Your task to perform on an android device: turn pop-ups off in chrome Image 0: 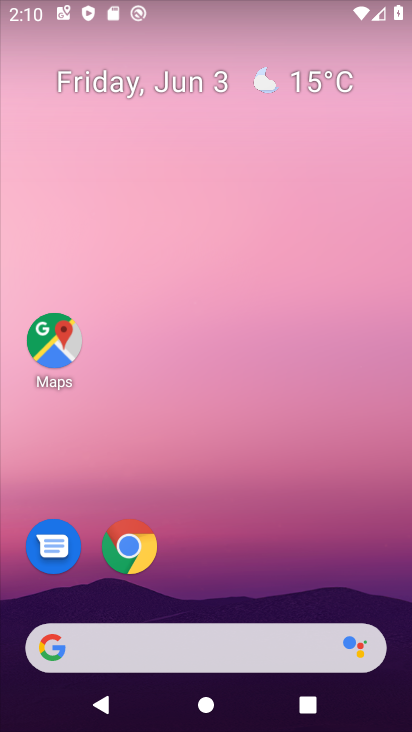
Step 0: drag from (302, 559) to (342, 36)
Your task to perform on an android device: turn pop-ups off in chrome Image 1: 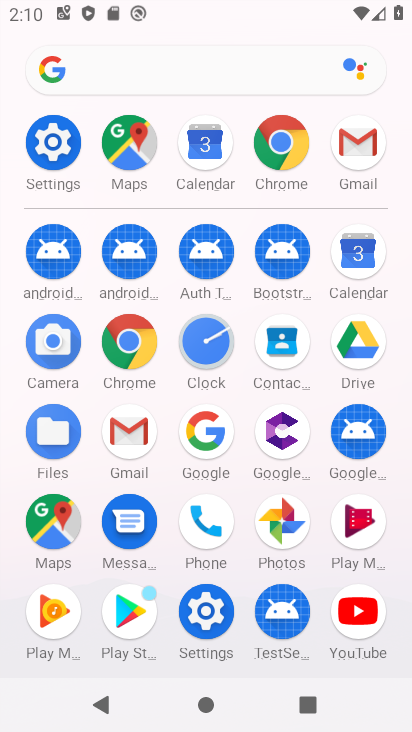
Step 1: click (300, 137)
Your task to perform on an android device: turn pop-ups off in chrome Image 2: 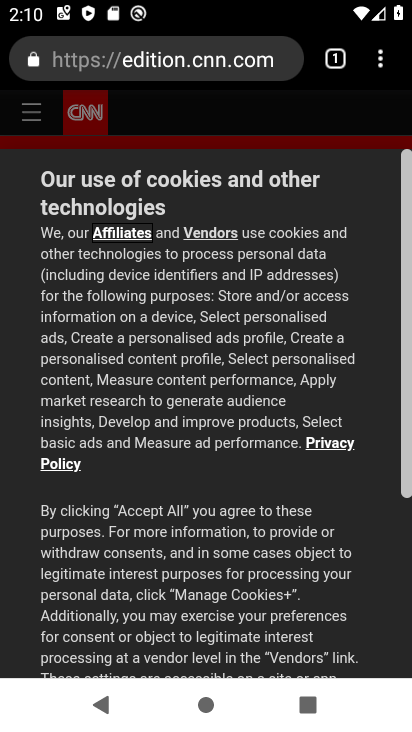
Step 2: drag from (381, 55) to (182, 568)
Your task to perform on an android device: turn pop-ups off in chrome Image 3: 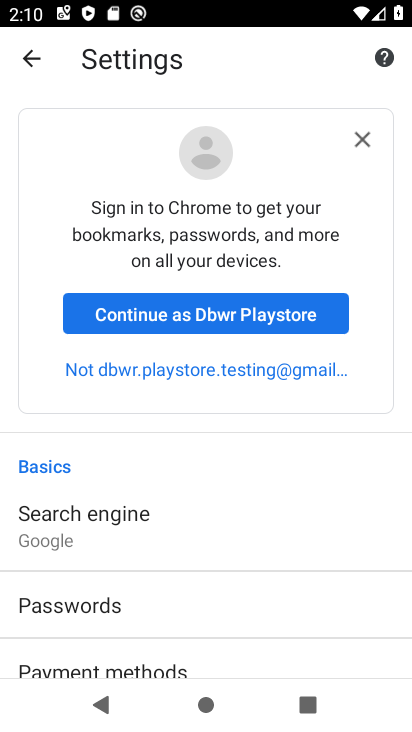
Step 3: drag from (218, 618) to (294, 155)
Your task to perform on an android device: turn pop-ups off in chrome Image 4: 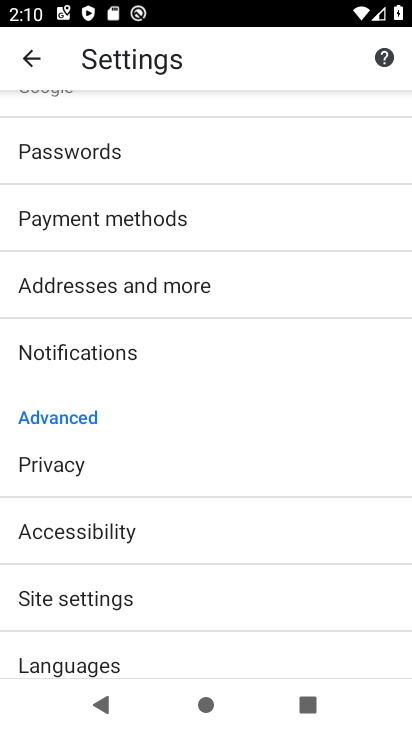
Step 4: drag from (89, 592) to (180, 218)
Your task to perform on an android device: turn pop-ups off in chrome Image 5: 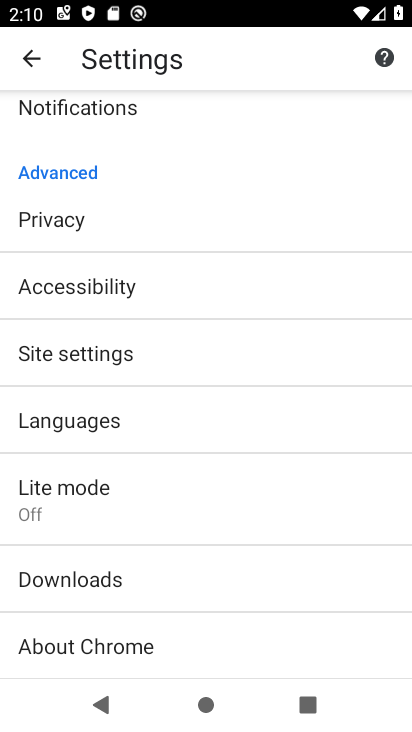
Step 5: click (151, 352)
Your task to perform on an android device: turn pop-ups off in chrome Image 6: 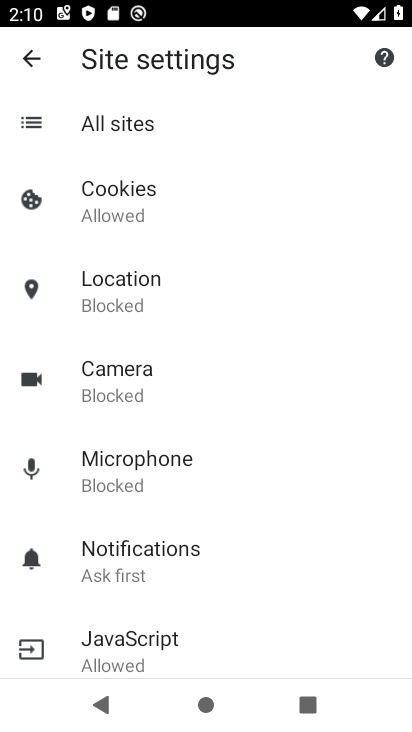
Step 6: drag from (173, 663) to (197, 272)
Your task to perform on an android device: turn pop-ups off in chrome Image 7: 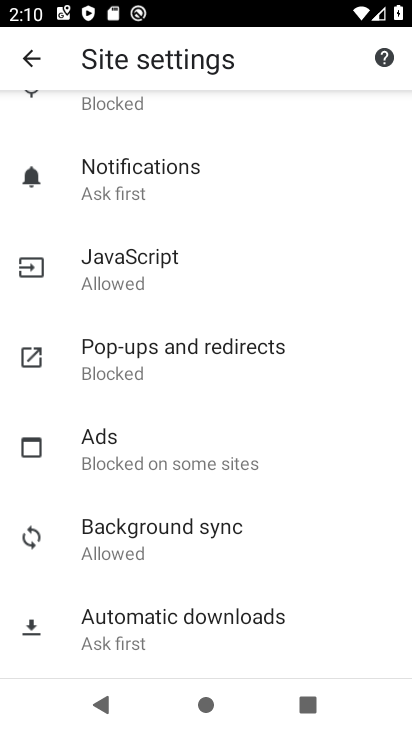
Step 7: click (160, 370)
Your task to perform on an android device: turn pop-ups off in chrome Image 8: 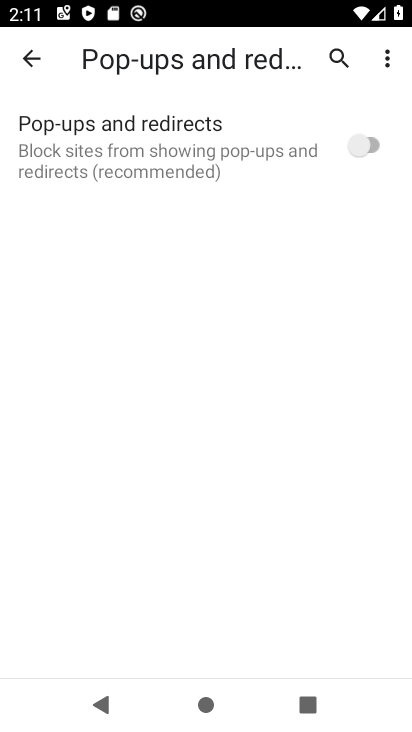
Step 8: task complete